Your task to perform on an android device: Go to internet settings Image 0: 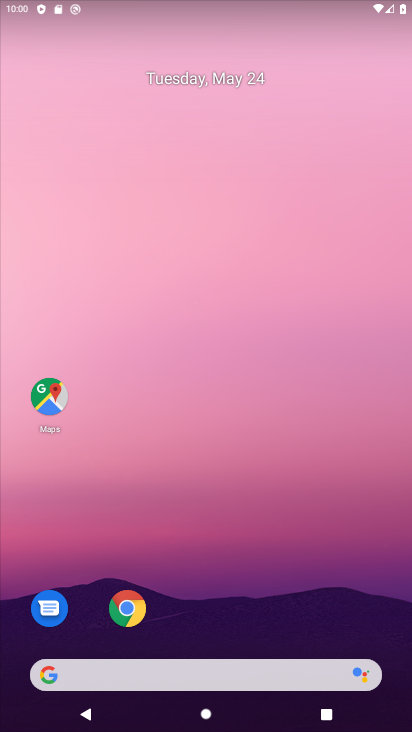
Step 0: drag from (235, 619) to (196, 94)
Your task to perform on an android device: Go to internet settings Image 1: 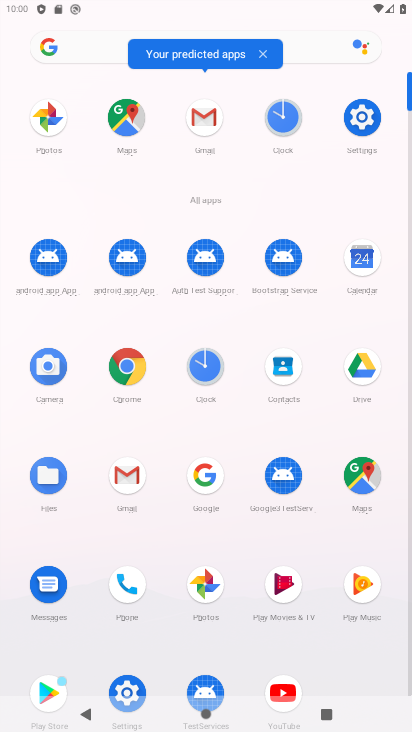
Step 1: click (364, 118)
Your task to perform on an android device: Go to internet settings Image 2: 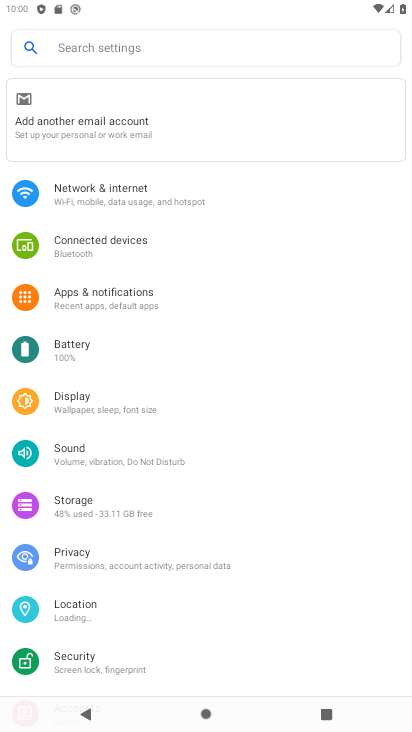
Step 2: click (231, 197)
Your task to perform on an android device: Go to internet settings Image 3: 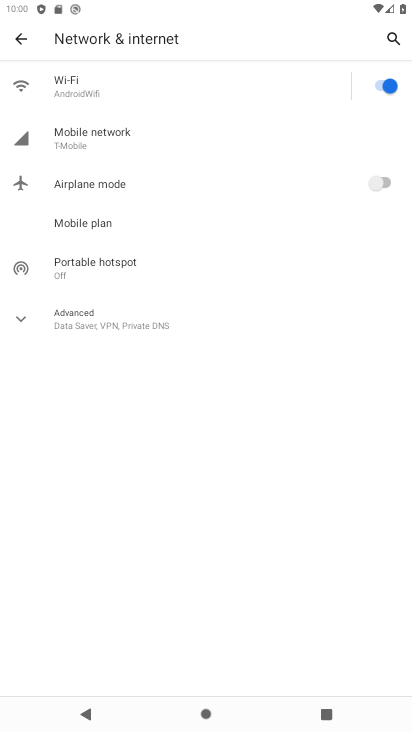
Step 3: task complete